Your task to perform on an android device: Open Youtube and go to the subscriptions tab Image 0: 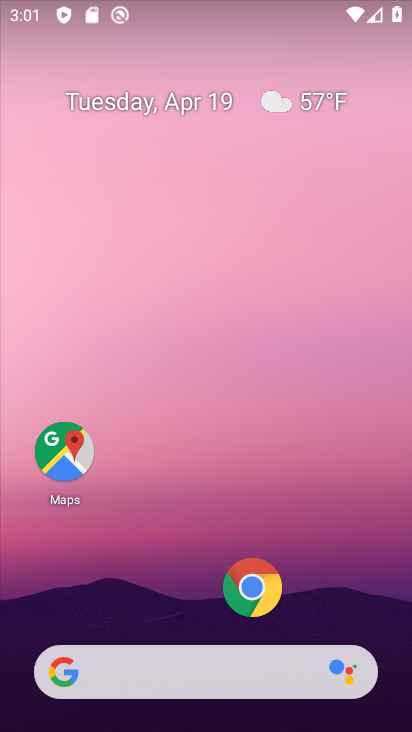
Step 0: drag from (171, 607) to (225, 208)
Your task to perform on an android device: Open Youtube and go to the subscriptions tab Image 1: 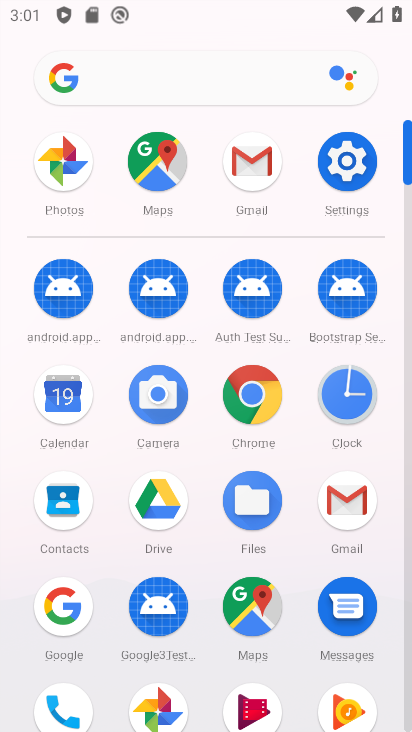
Step 1: drag from (193, 644) to (249, 299)
Your task to perform on an android device: Open Youtube and go to the subscriptions tab Image 2: 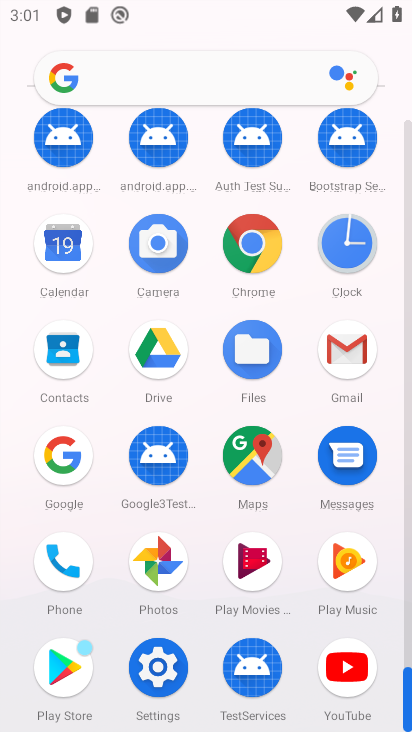
Step 2: click (337, 686)
Your task to perform on an android device: Open Youtube and go to the subscriptions tab Image 3: 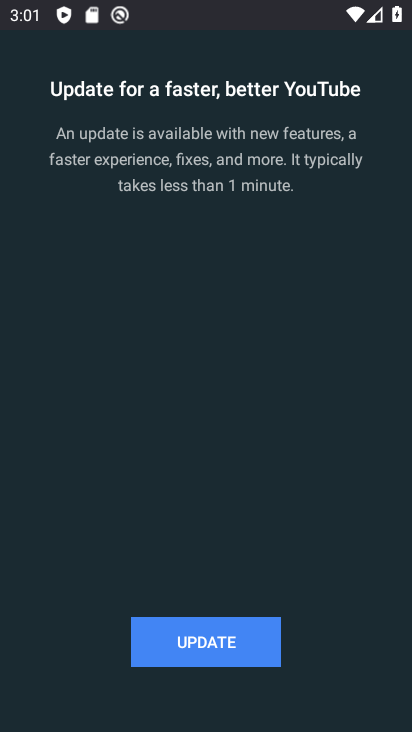
Step 3: click (205, 648)
Your task to perform on an android device: Open Youtube and go to the subscriptions tab Image 4: 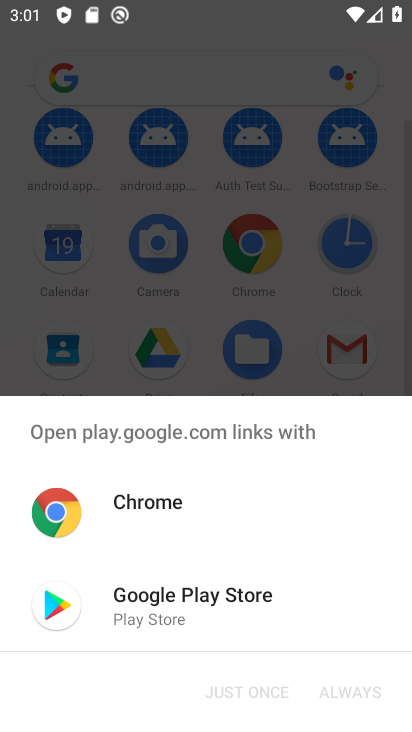
Step 4: click (139, 592)
Your task to perform on an android device: Open Youtube and go to the subscriptions tab Image 5: 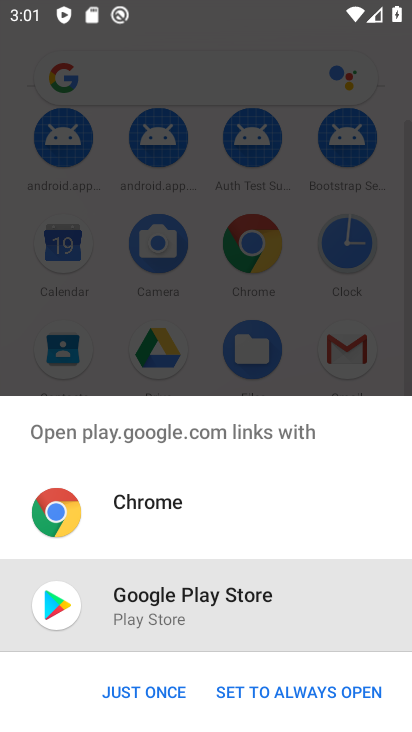
Step 5: click (156, 695)
Your task to perform on an android device: Open Youtube and go to the subscriptions tab Image 6: 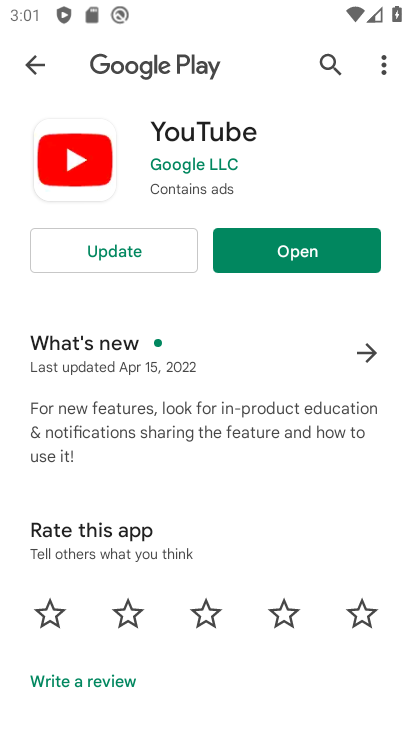
Step 6: click (277, 254)
Your task to perform on an android device: Open Youtube and go to the subscriptions tab Image 7: 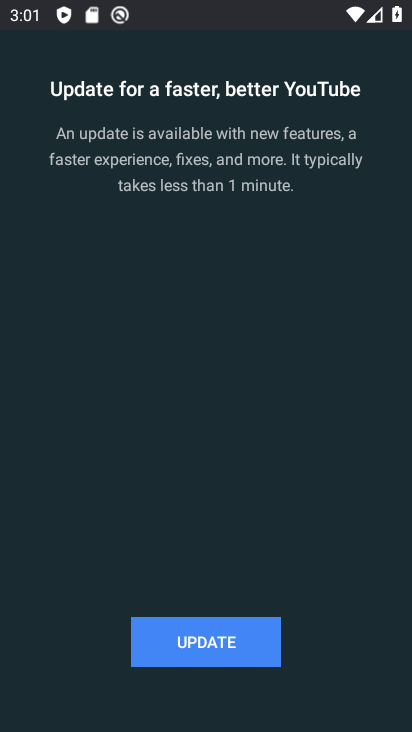
Step 7: click (210, 643)
Your task to perform on an android device: Open Youtube and go to the subscriptions tab Image 8: 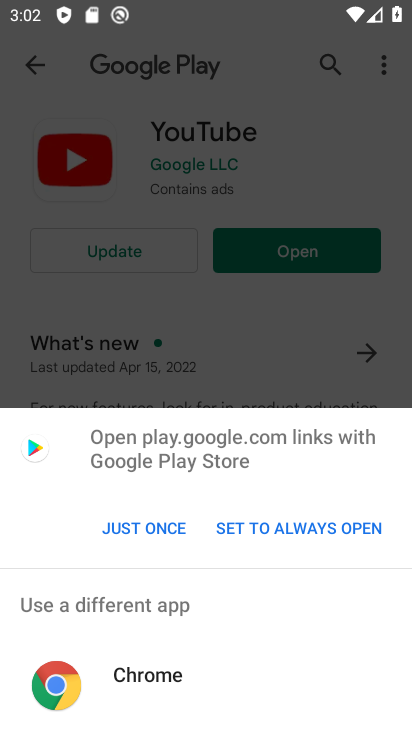
Step 8: click (133, 520)
Your task to perform on an android device: Open Youtube and go to the subscriptions tab Image 9: 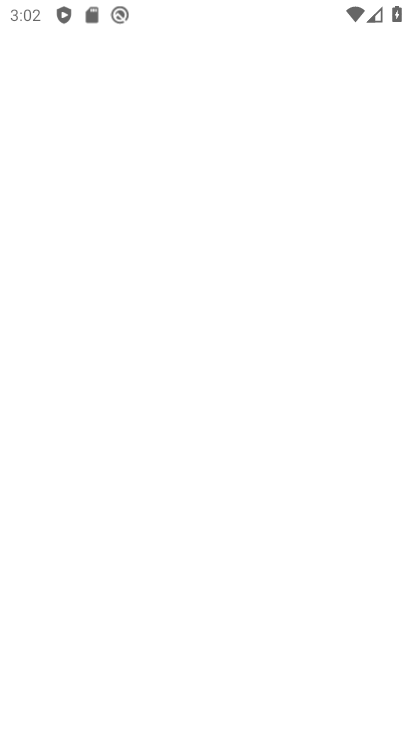
Step 9: click (139, 253)
Your task to perform on an android device: Open Youtube and go to the subscriptions tab Image 10: 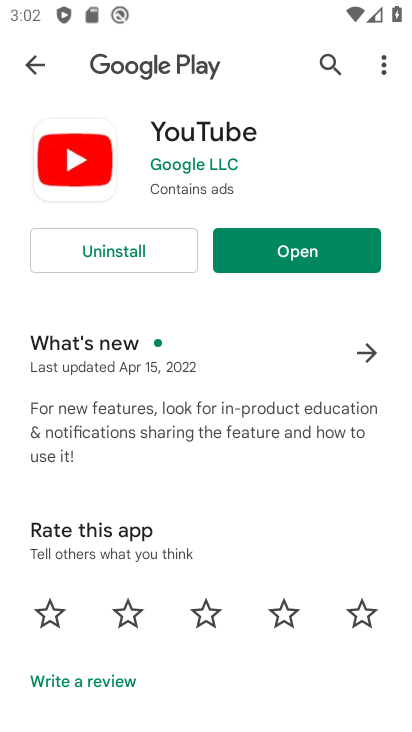
Step 10: click (290, 255)
Your task to perform on an android device: Open Youtube and go to the subscriptions tab Image 11: 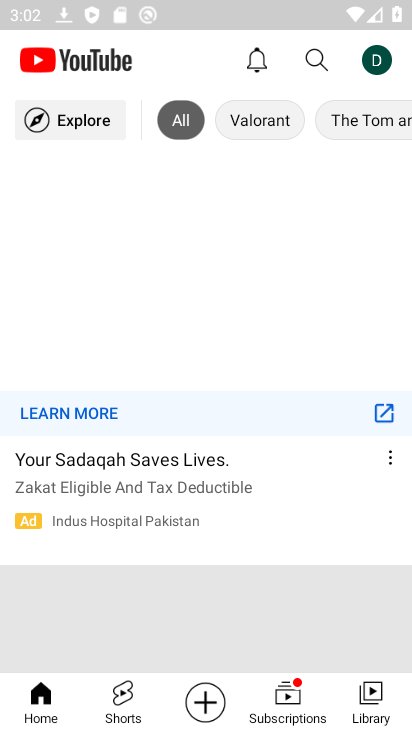
Step 11: click (283, 705)
Your task to perform on an android device: Open Youtube and go to the subscriptions tab Image 12: 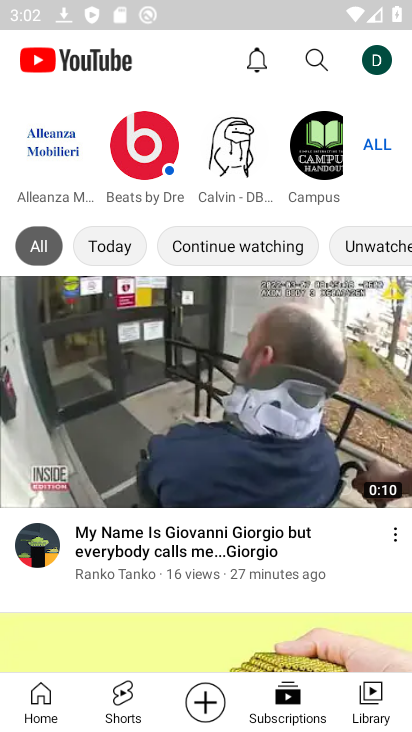
Step 12: task complete